Your task to perform on an android device: Go to Yahoo.com Image 0: 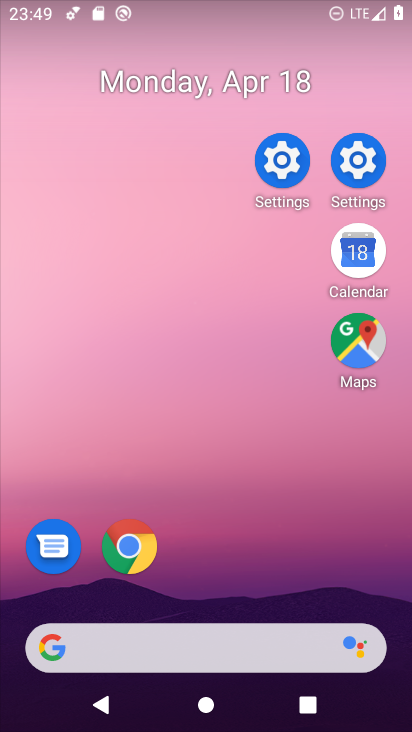
Step 0: drag from (261, 586) to (176, 292)
Your task to perform on an android device: Go to Yahoo.com Image 1: 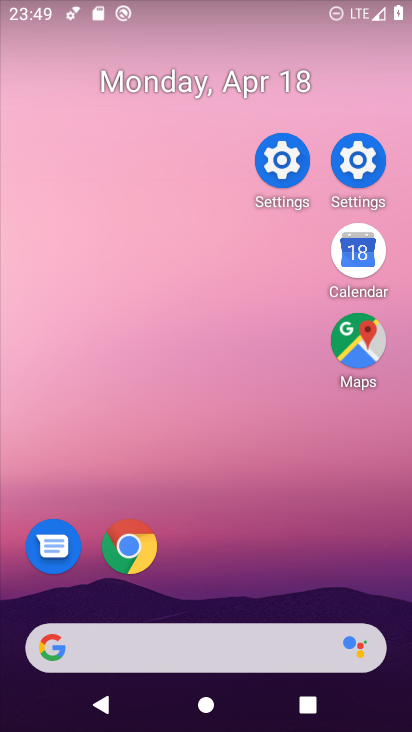
Step 1: drag from (194, 507) to (145, 243)
Your task to perform on an android device: Go to Yahoo.com Image 2: 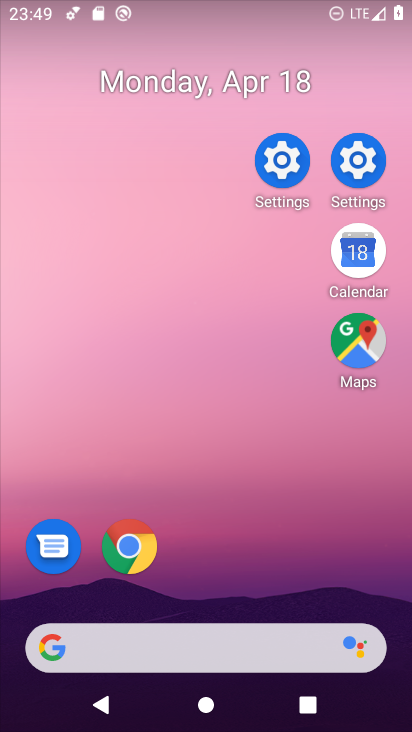
Step 2: drag from (264, 550) to (177, 173)
Your task to perform on an android device: Go to Yahoo.com Image 3: 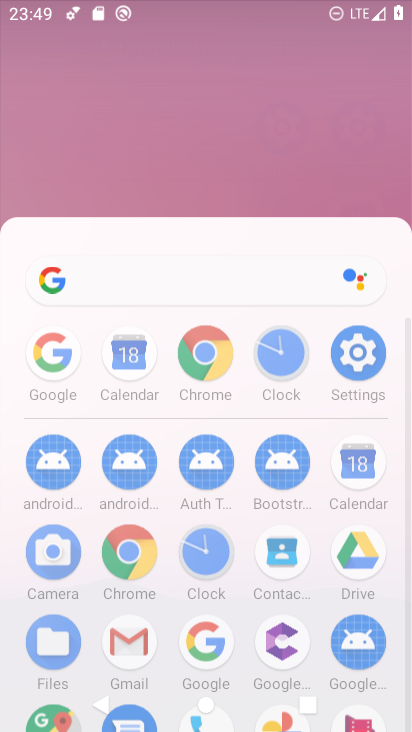
Step 3: drag from (255, 384) to (229, 164)
Your task to perform on an android device: Go to Yahoo.com Image 4: 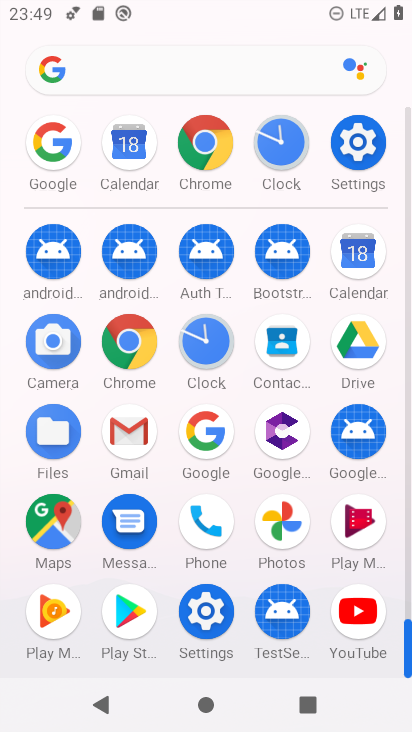
Step 4: click (202, 154)
Your task to perform on an android device: Go to Yahoo.com Image 5: 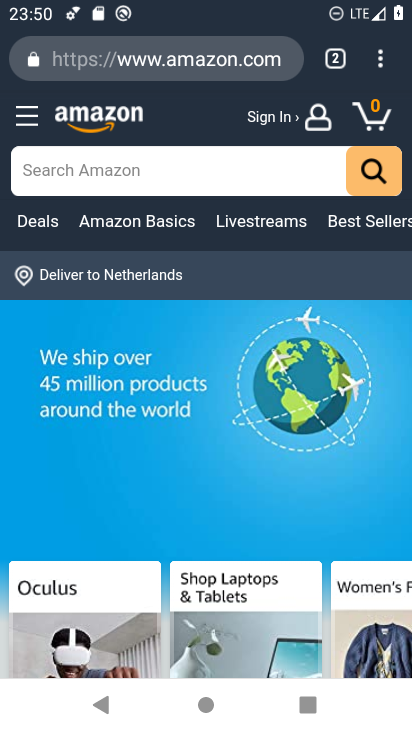
Step 5: press back button
Your task to perform on an android device: Go to Yahoo.com Image 6: 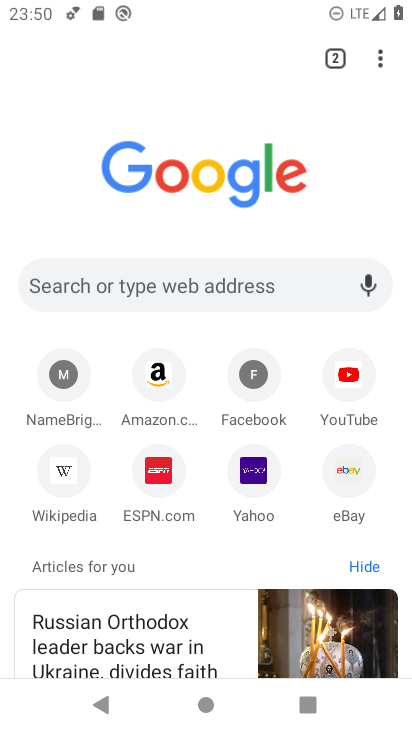
Step 6: click (380, 63)
Your task to perform on an android device: Go to Yahoo.com Image 7: 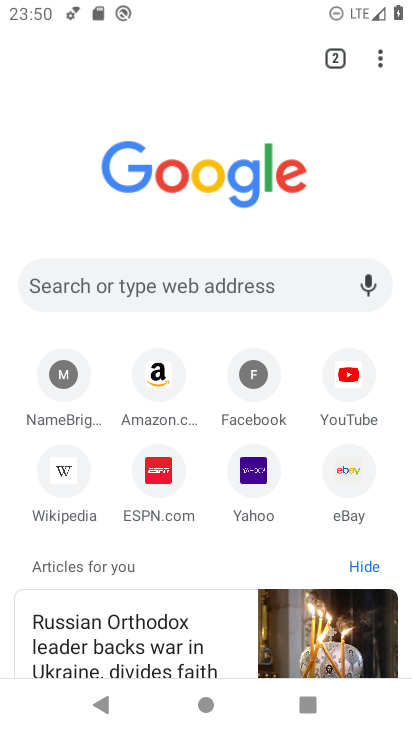
Step 7: click (258, 467)
Your task to perform on an android device: Go to Yahoo.com Image 8: 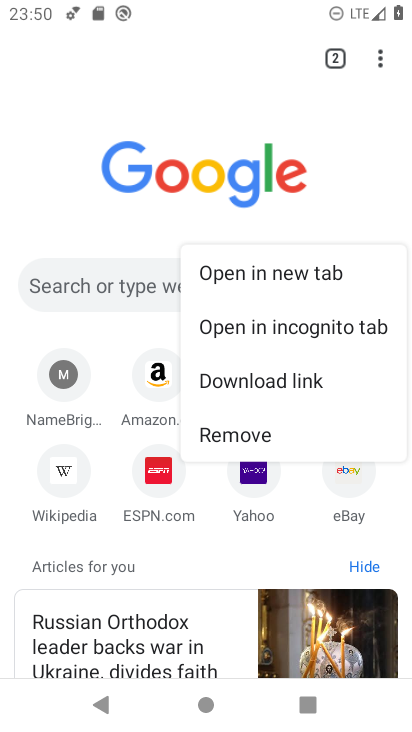
Step 8: click (138, 196)
Your task to perform on an android device: Go to Yahoo.com Image 9: 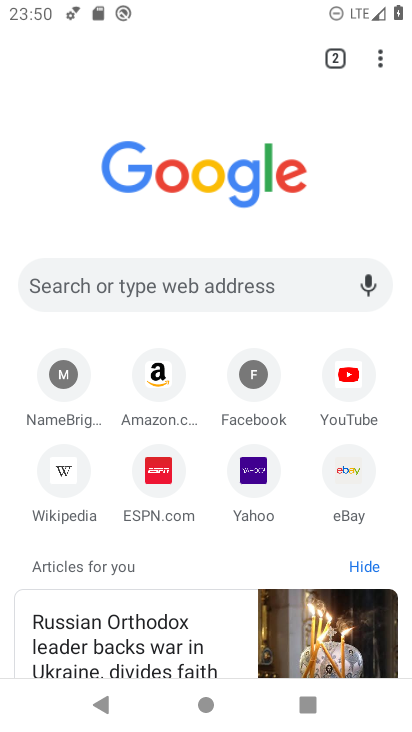
Step 9: click (251, 469)
Your task to perform on an android device: Go to Yahoo.com Image 10: 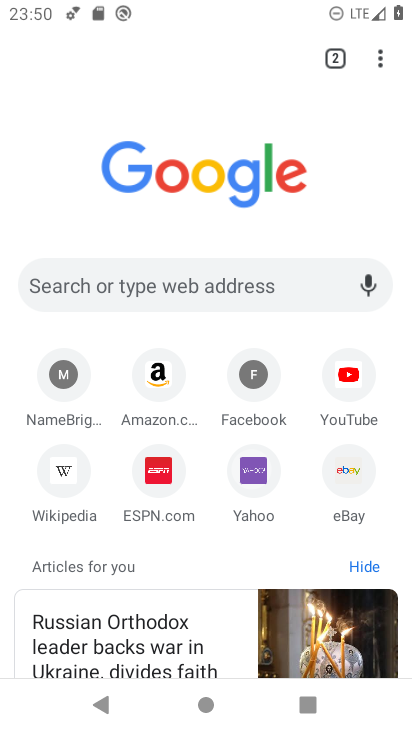
Step 10: click (231, 457)
Your task to perform on an android device: Go to Yahoo.com Image 11: 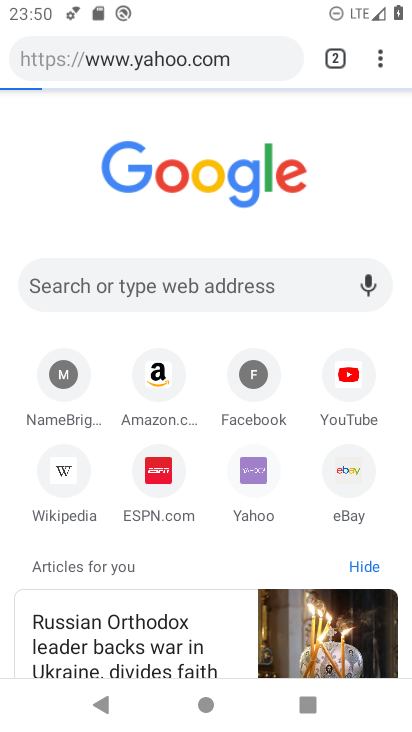
Step 11: click (243, 474)
Your task to perform on an android device: Go to Yahoo.com Image 12: 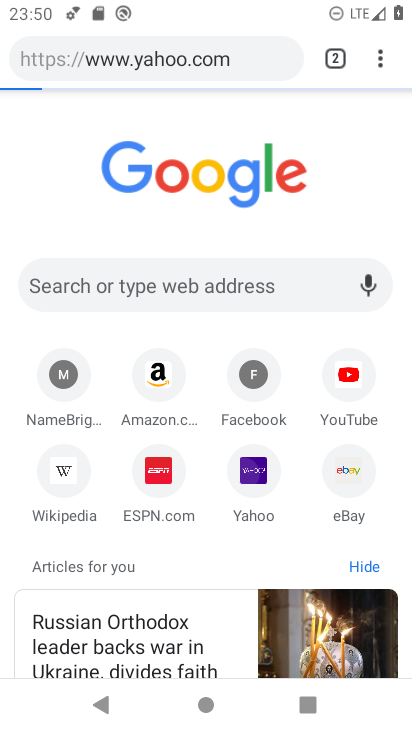
Step 12: click (243, 474)
Your task to perform on an android device: Go to Yahoo.com Image 13: 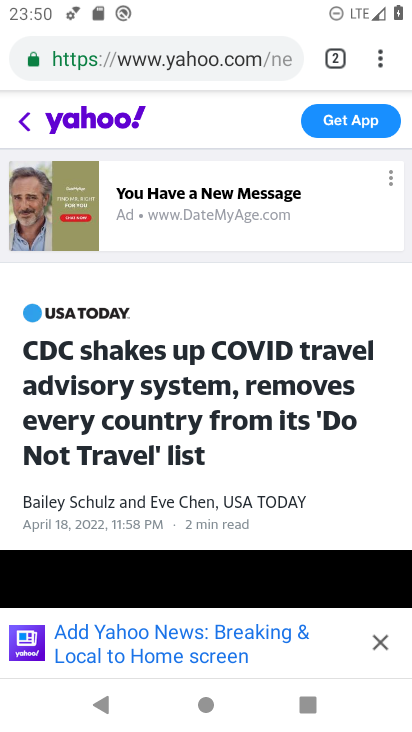
Step 13: task complete